Your task to perform on an android device: Open network settings Image 0: 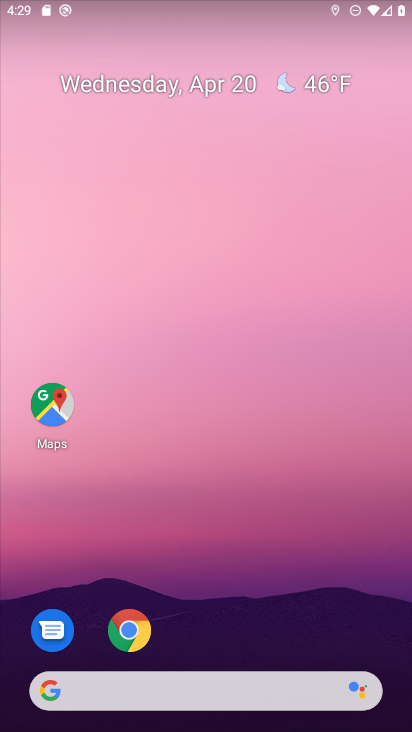
Step 0: drag from (300, 608) to (328, 103)
Your task to perform on an android device: Open network settings Image 1: 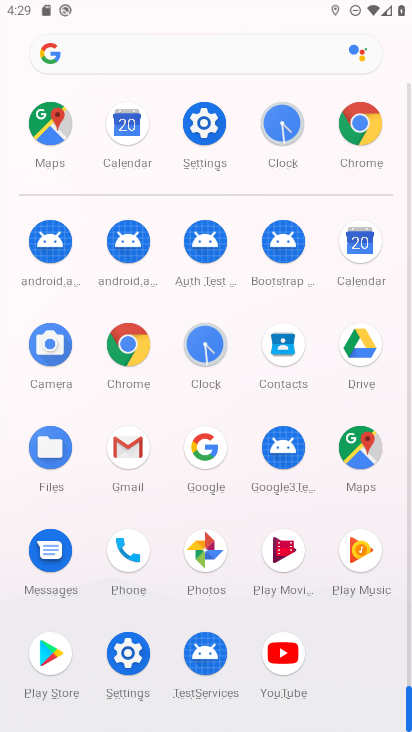
Step 1: click (204, 115)
Your task to perform on an android device: Open network settings Image 2: 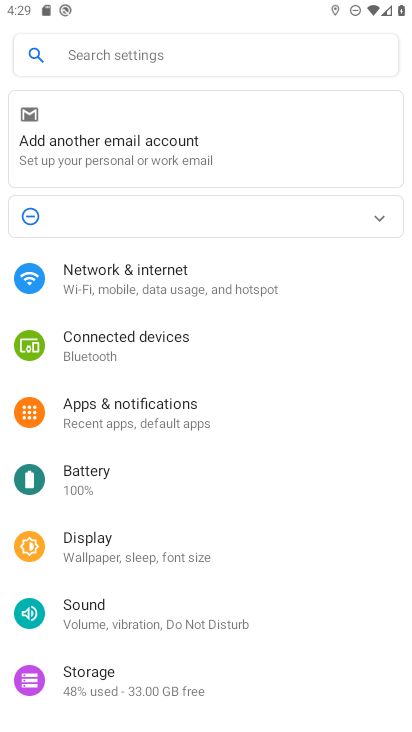
Step 2: click (178, 284)
Your task to perform on an android device: Open network settings Image 3: 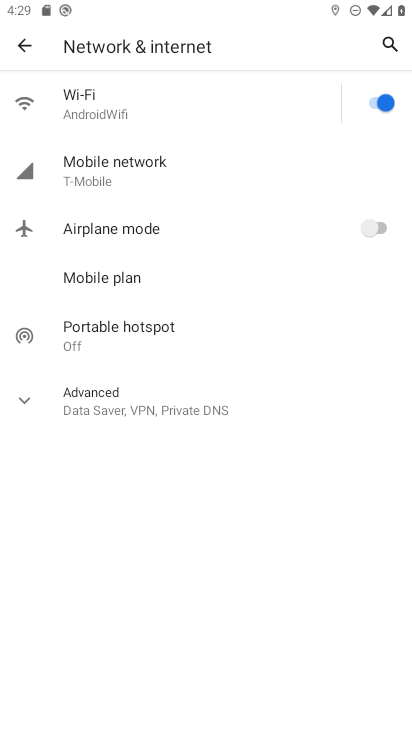
Step 3: click (182, 175)
Your task to perform on an android device: Open network settings Image 4: 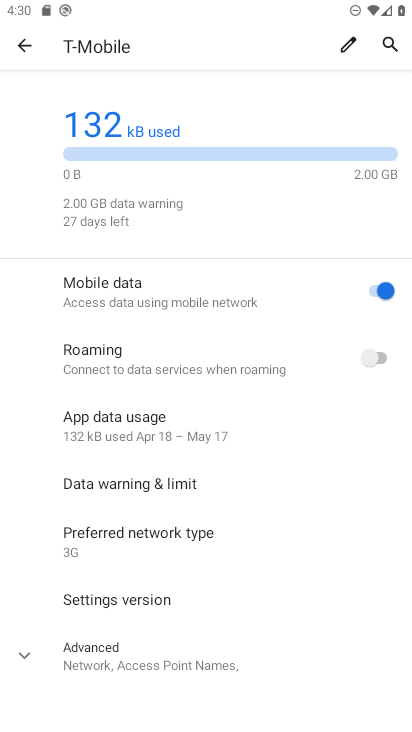
Step 4: task complete